Your task to perform on an android device: Search for Mexican restaurants on Maps Image 0: 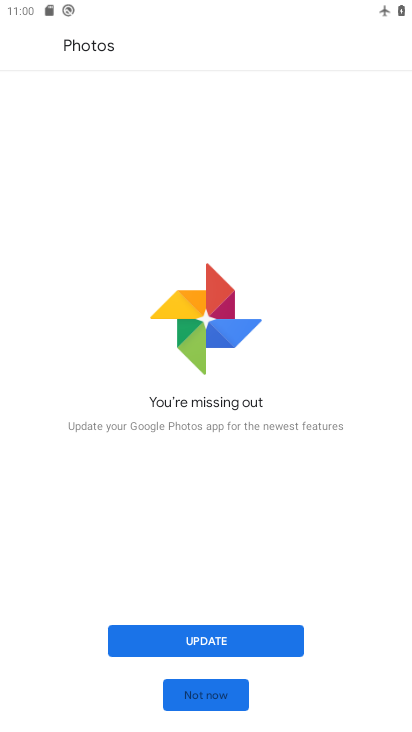
Step 0: press home button
Your task to perform on an android device: Search for Mexican restaurants on Maps Image 1: 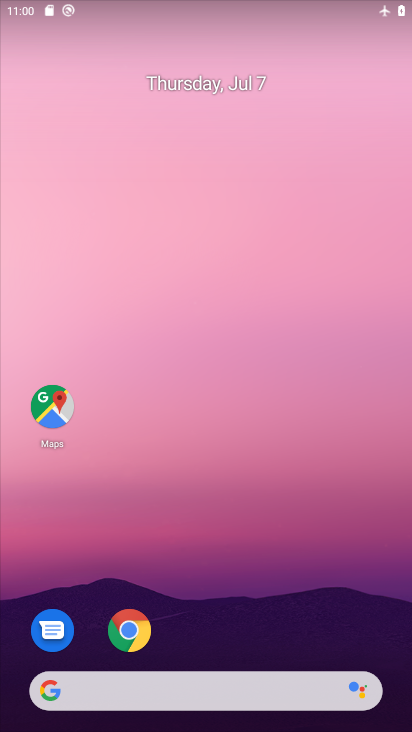
Step 1: click (38, 402)
Your task to perform on an android device: Search for Mexican restaurants on Maps Image 2: 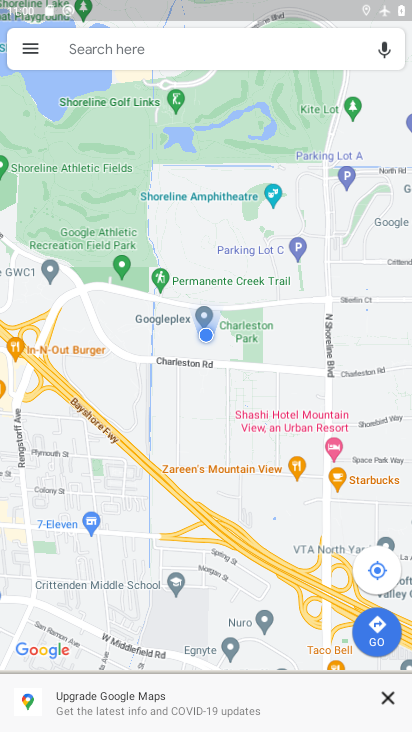
Step 2: click (193, 42)
Your task to perform on an android device: Search for Mexican restaurants on Maps Image 3: 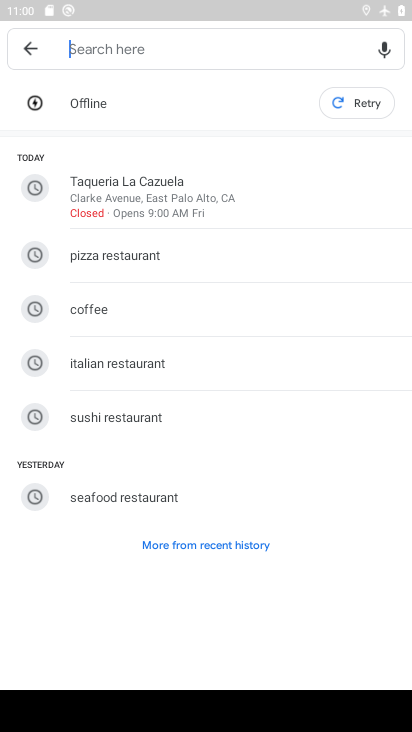
Step 3: type "mexican restaurants"
Your task to perform on an android device: Search for Mexican restaurants on Maps Image 4: 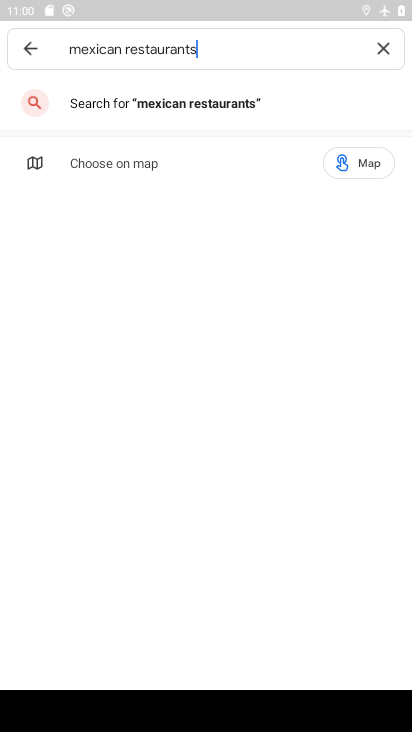
Step 4: click (155, 100)
Your task to perform on an android device: Search for Mexican restaurants on Maps Image 5: 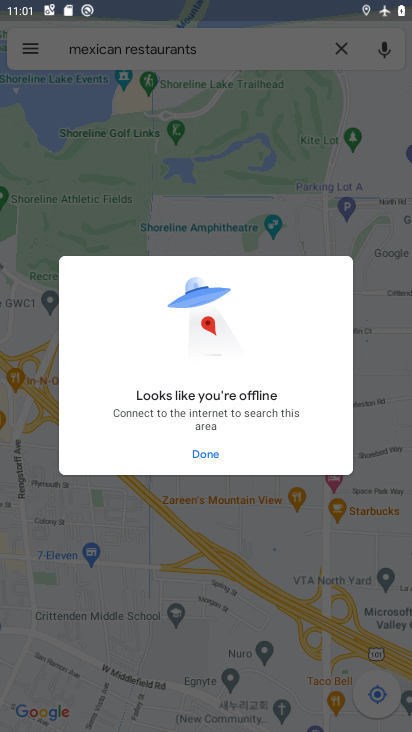
Step 5: task complete